Your task to perform on an android device: Open settings Image 0: 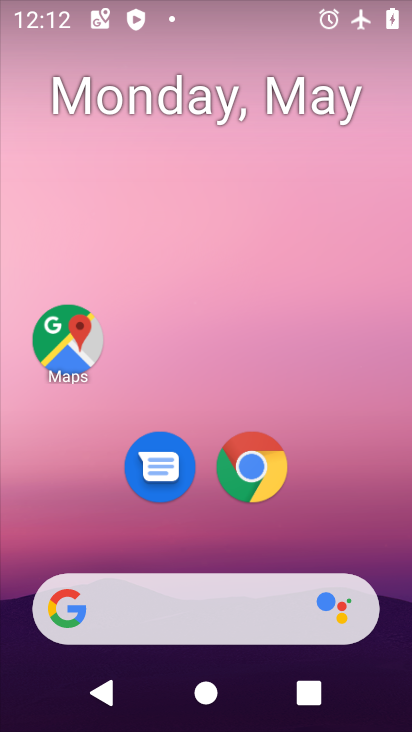
Step 0: drag from (370, 550) to (402, 19)
Your task to perform on an android device: Open settings Image 1: 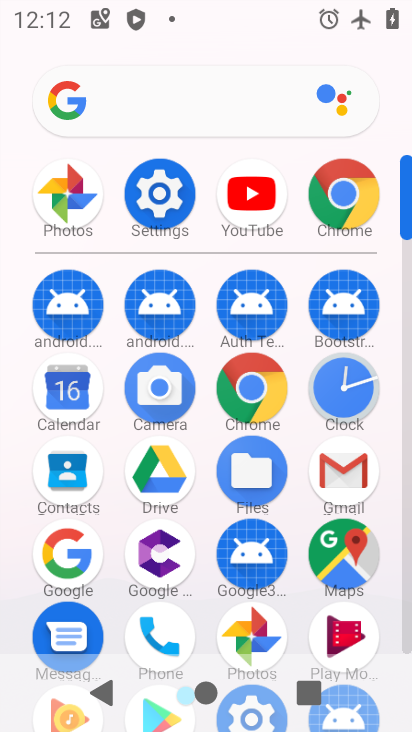
Step 1: click (154, 196)
Your task to perform on an android device: Open settings Image 2: 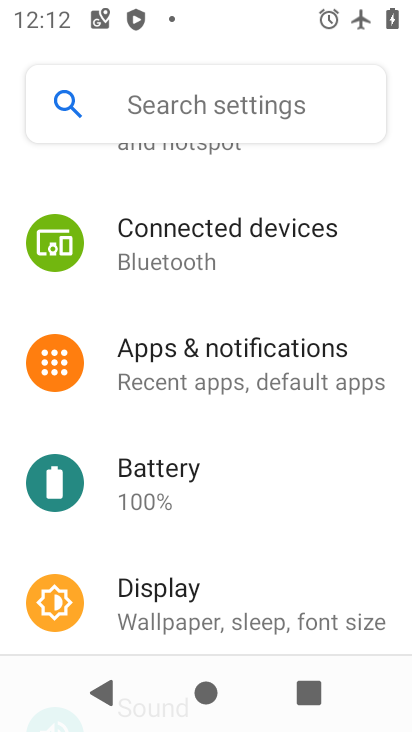
Step 2: task complete